Your task to perform on an android device: turn on showing notifications on the lock screen Image 0: 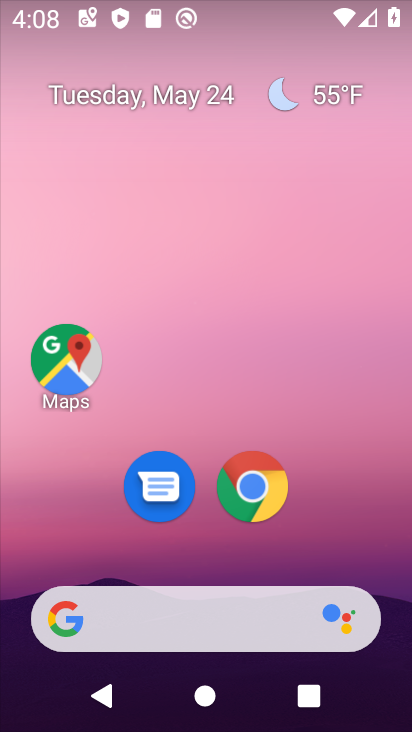
Step 0: drag from (346, 492) to (323, 319)
Your task to perform on an android device: turn on showing notifications on the lock screen Image 1: 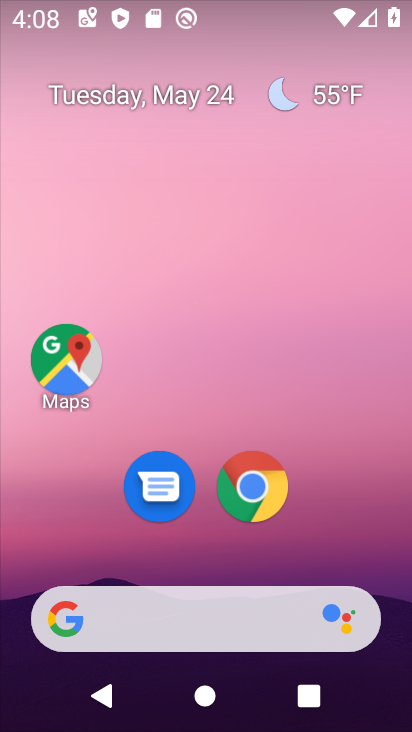
Step 1: drag from (351, 383) to (327, 98)
Your task to perform on an android device: turn on showing notifications on the lock screen Image 2: 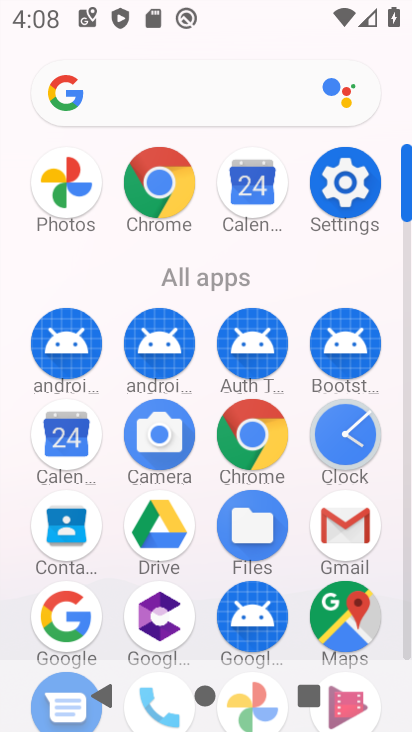
Step 2: click (325, 194)
Your task to perform on an android device: turn on showing notifications on the lock screen Image 3: 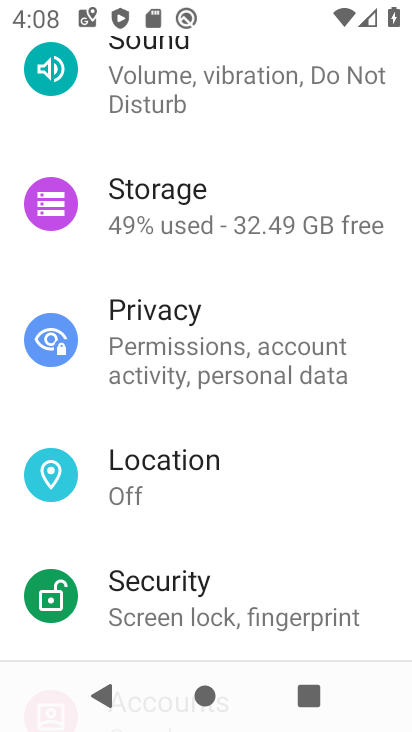
Step 3: drag from (299, 174) to (285, 537)
Your task to perform on an android device: turn on showing notifications on the lock screen Image 4: 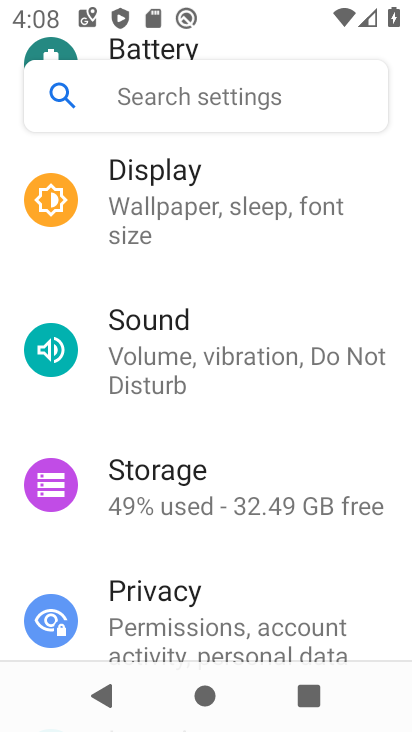
Step 4: drag from (310, 314) to (294, 601)
Your task to perform on an android device: turn on showing notifications on the lock screen Image 5: 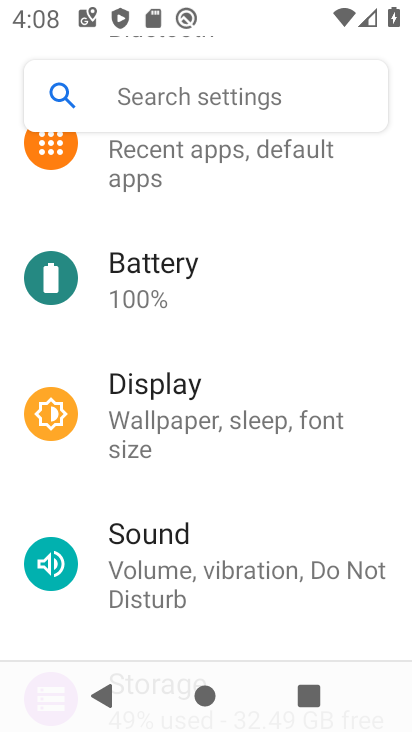
Step 5: drag from (264, 317) to (268, 597)
Your task to perform on an android device: turn on showing notifications on the lock screen Image 6: 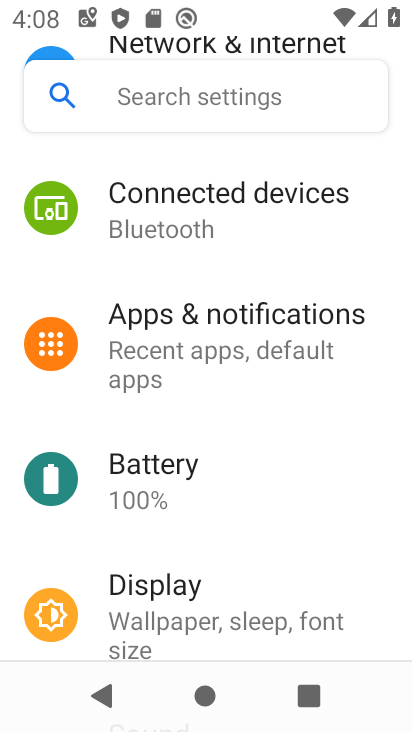
Step 6: drag from (256, 513) to (250, 176)
Your task to perform on an android device: turn on showing notifications on the lock screen Image 7: 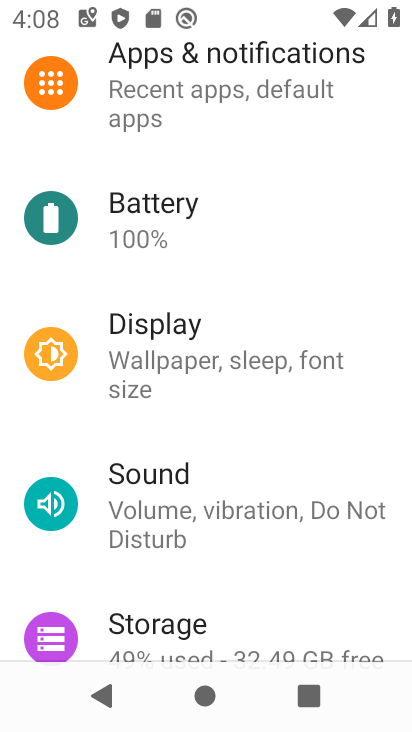
Step 7: drag from (261, 503) to (255, 160)
Your task to perform on an android device: turn on showing notifications on the lock screen Image 8: 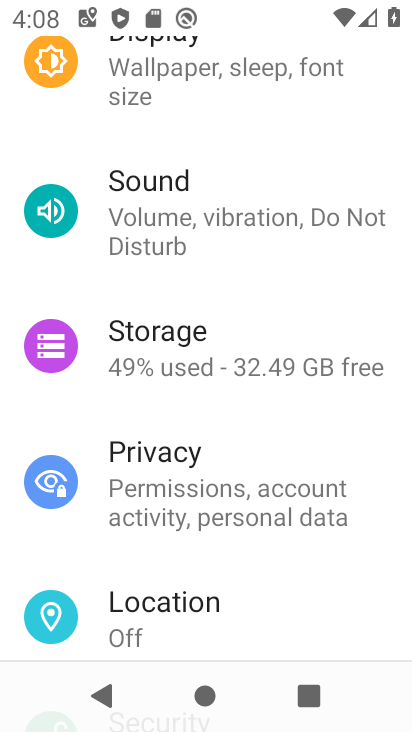
Step 8: drag from (221, 505) to (218, 248)
Your task to perform on an android device: turn on showing notifications on the lock screen Image 9: 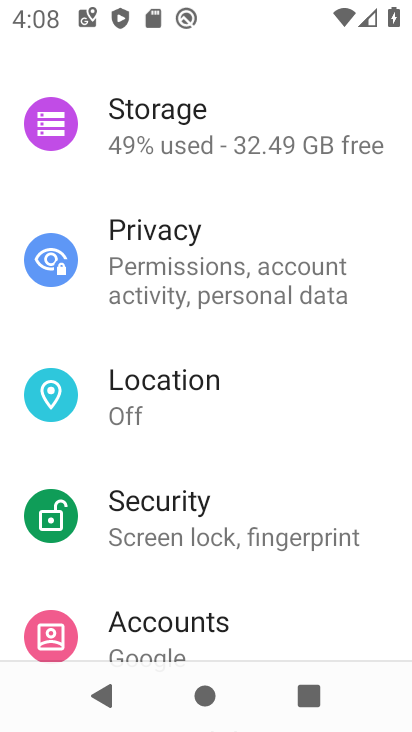
Step 9: drag from (203, 357) to (206, 265)
Your task to perform on an android device: turn on showing notifications on the lock screen Image 10: 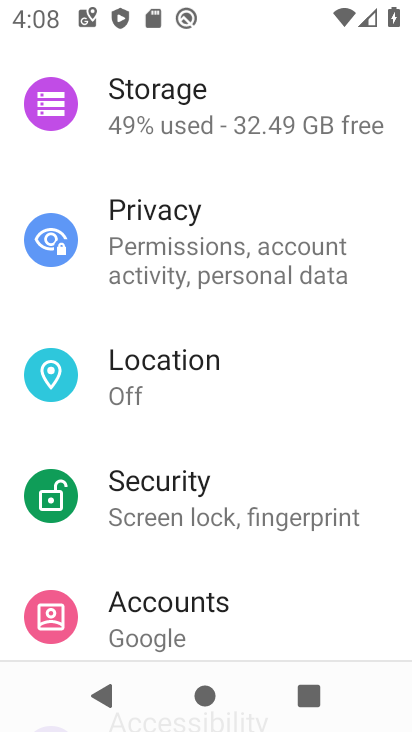
Step 10: drag from (237, 534) to (232, 405)
Your task to perform on an android device: turn on showing notifications on the lock screen Image 11: 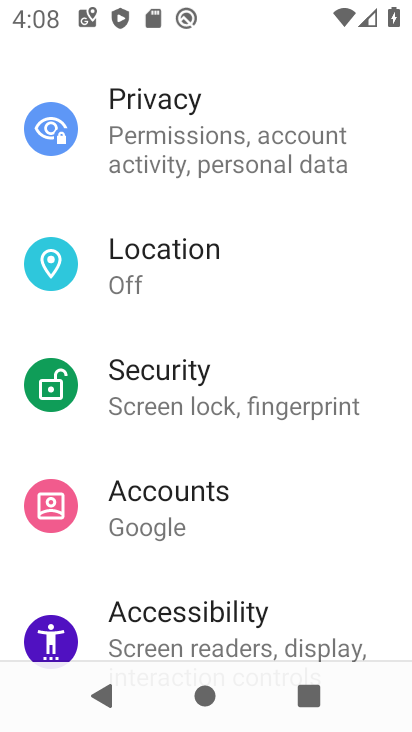
Step 11: drag from (253, 587) to (249, 438)
Your task to perform on an android device: turn on showing notifications on the lock screen Image 12: 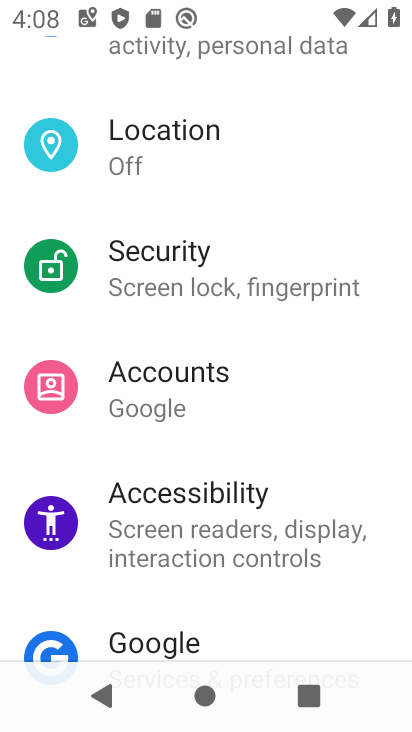
Step 12: drag from (253, 651) to (256, 464)
Your task to perform on an android device: turn on showing notifications on the lock screen Image 13: 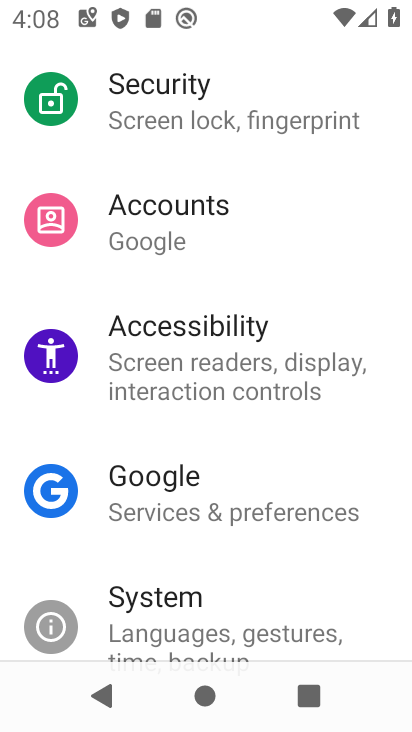
Step 13: drag from (383, 153) to (365, 562)
Your task to perform on an android device: turn on showing notifications on the lock screen Image 14: 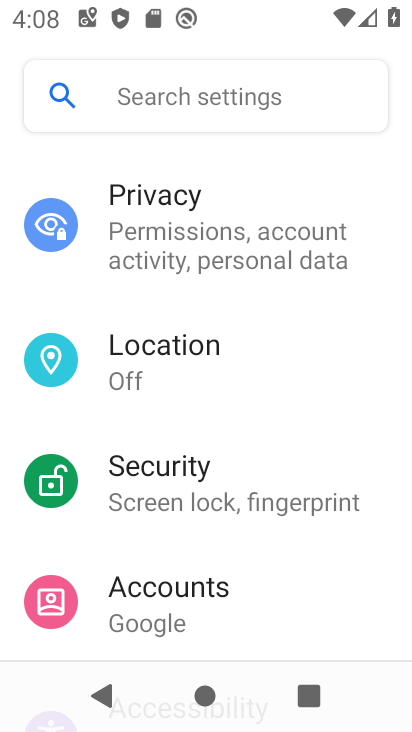
Step 14: drag from (234, 228) to (185, 603)
Your task to perform on an android device: turn on showing notifications on the lock screen Image 15: 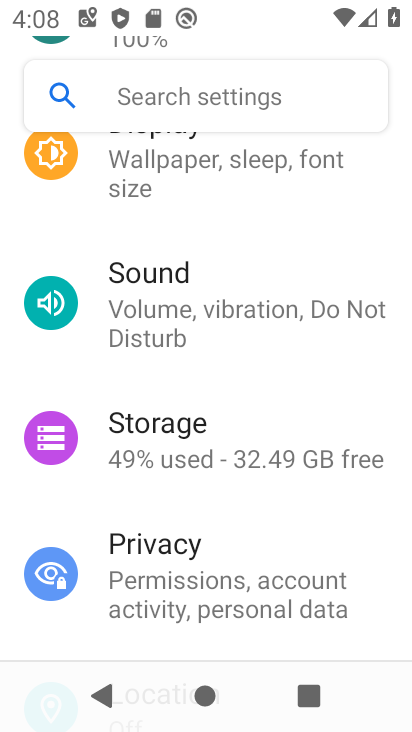
Step 15: drag from (218, 335) to (166, 541)
Your task to perform on an android device: turn on showing notifications on the lock screen Image 16: 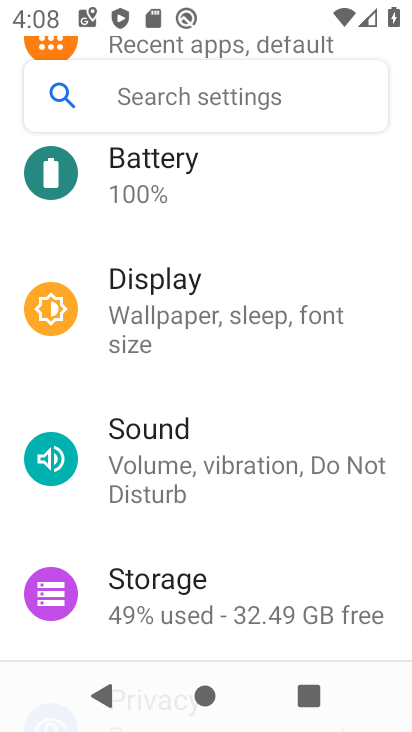
Step 16: click (190, 283)
Your task to perform on an android device: turn on showing notifications on the lock screen Image 17: 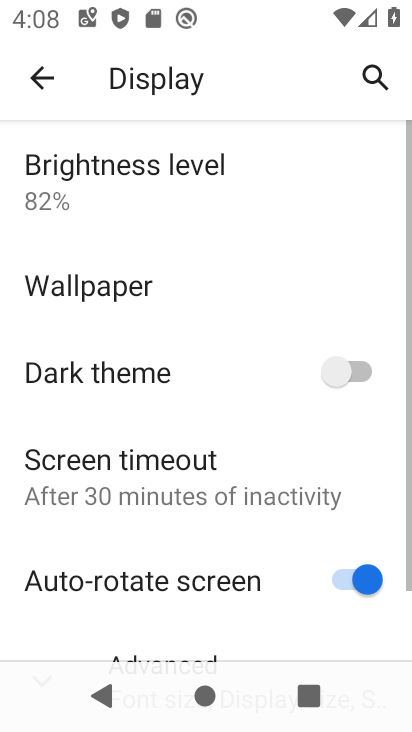
Step 17: drag from (180, 532) to (199, 82)
Your task to perform on an android device: turn on showing notifications on the lock screen Image 18: 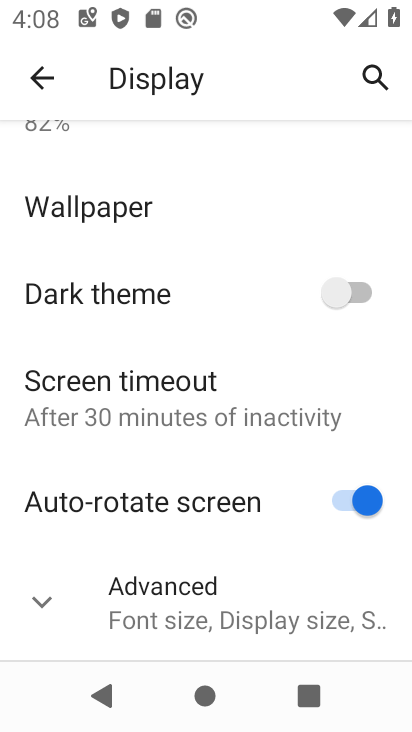
Step 18: click (209, 606)
Your task to perform on an android device: turn on showing notifications on the lock screen Image 19: 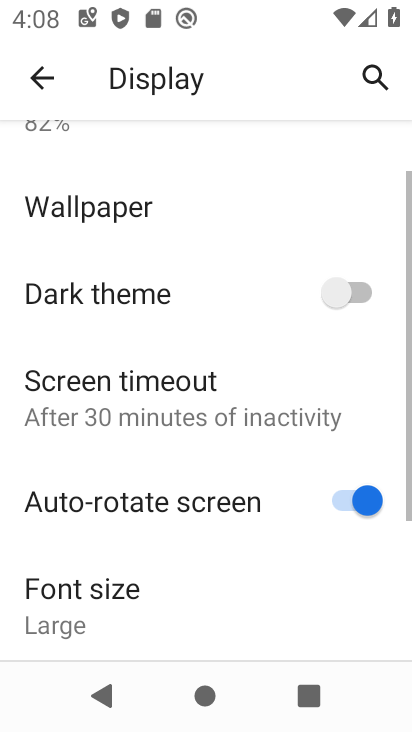
Step 19: drag from (215, 596) to (215, 174)
Your task to perform on an android device: turn on showing notifications on the lock screen Image 20: 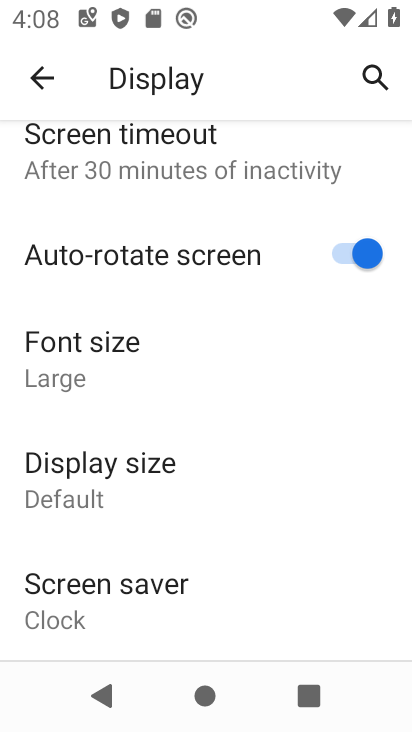
Step 20: drag from (196, 542) to (188, 183)
Your task to perform on an android device: turn on showing notifications on the lock screen Image 21: 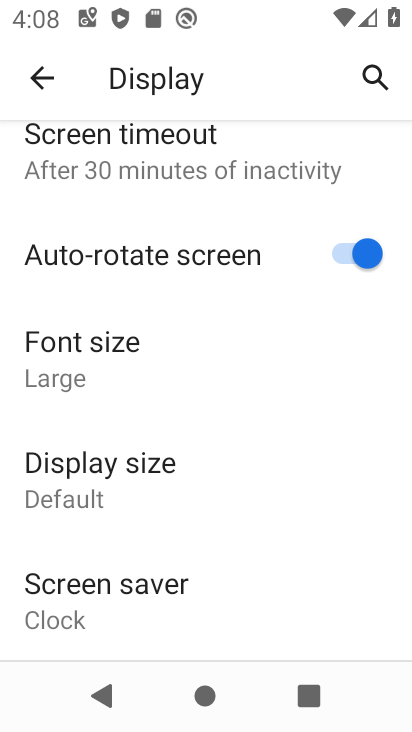
Step 21: press back button
Your task to perform on an android device: turn on showing notifications on the lock screen Image 22: 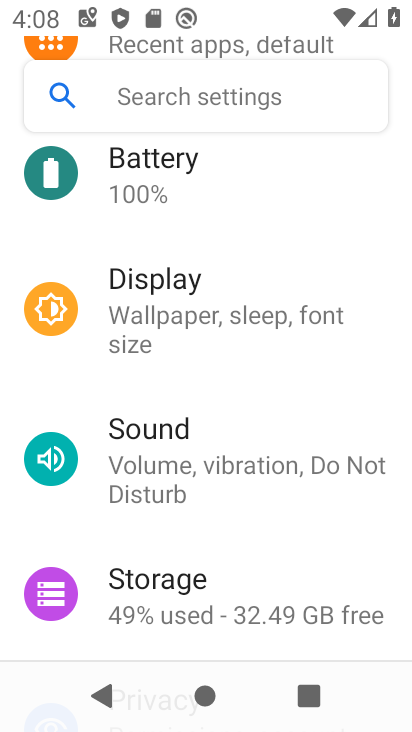
Step 22: drag from (215, 226) to (204, 631)
Your task to perform on an android device: turn on showing notifications on the lock screen Image 23: 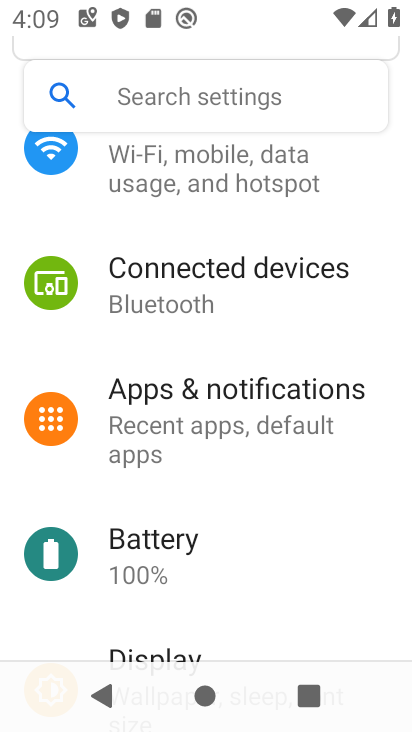
Step 23: click (170, 396)
Your task to perform on an android device: turn on showing notifications on the lock screen Image 24: 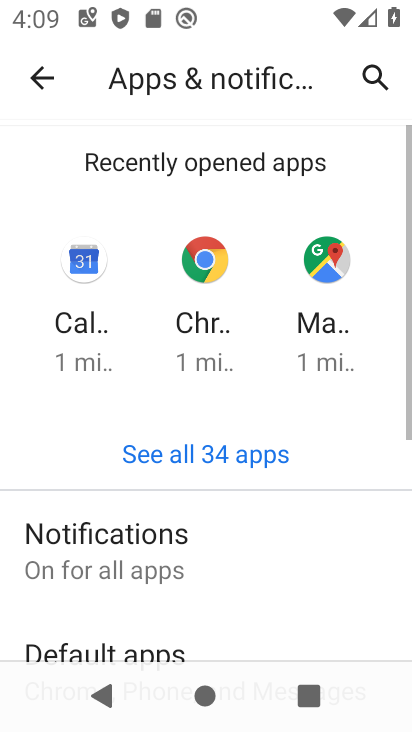
Step 24: drag from (160, 544) to (155, 124)
Your task to perform on an android device: turn on showing notifications on the lock screen Image 25: 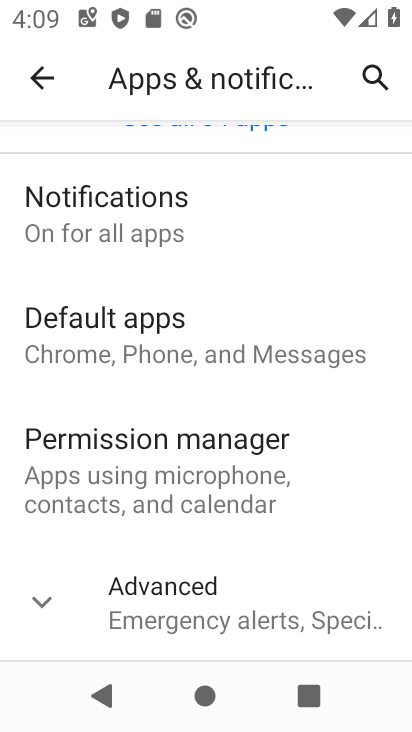
Step 25: click (209, 228)
Your task to perform on an android device: turn on showing notifications on the lock screen Image 26: 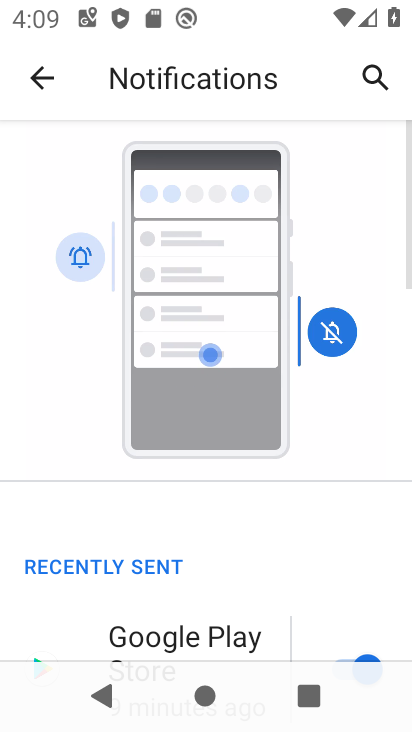
Step 26: drag from (194, 563) to (188, 139)
Your task to perform on an android device: turn on showing notifications on the lock screen Image 27: 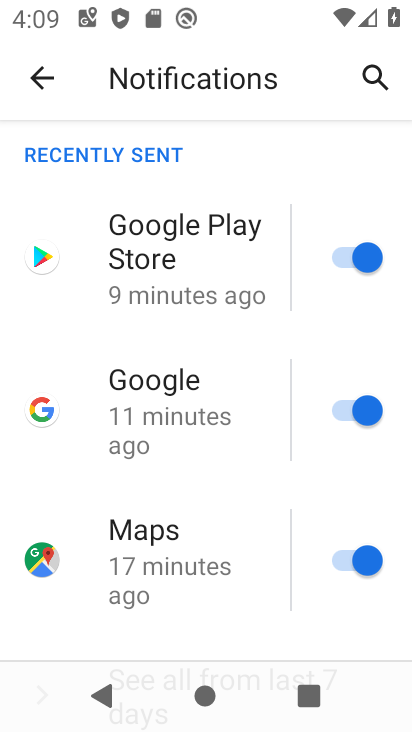
Step 27: drag from (221, 527) to (215, 153)
Your task to perform on an android device: turn on showing notifications on the lock screen Image 28: 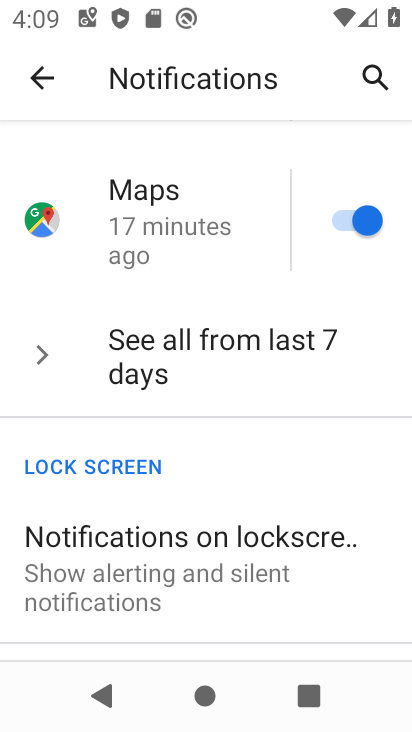
Step 28: click (216, 560)
Your task to perform on an android device: turn on showing notifications on the lock screen Image 29: 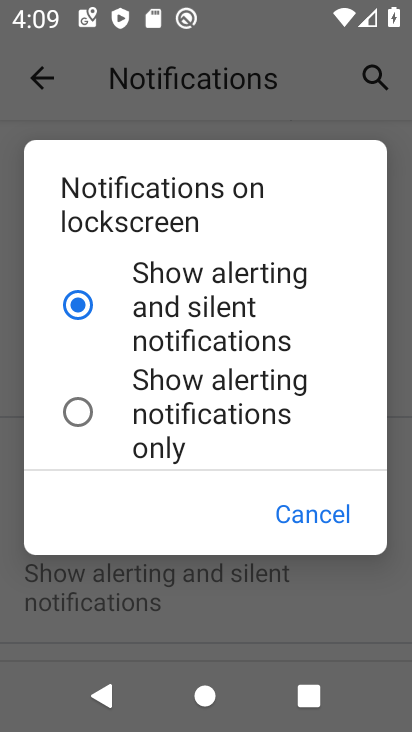
Step 29: click (81, 418)
Your task to perform on an android device: turn on showing notifications on the lock screen Image 30: 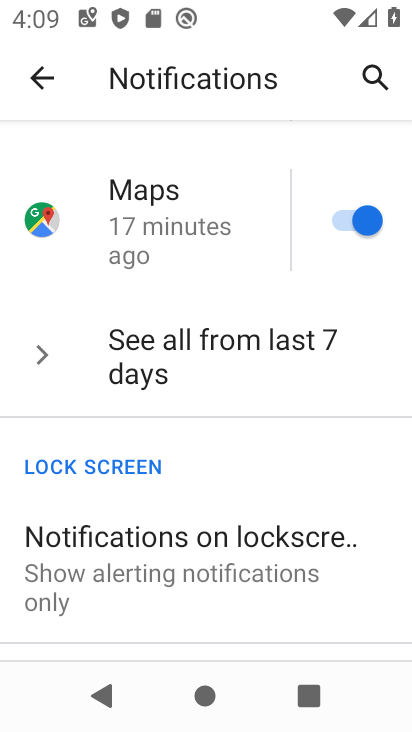
Step 30: click (237, 564)
Your task to perform on an android device: turn on showing notifications on the lock screen Image 31: 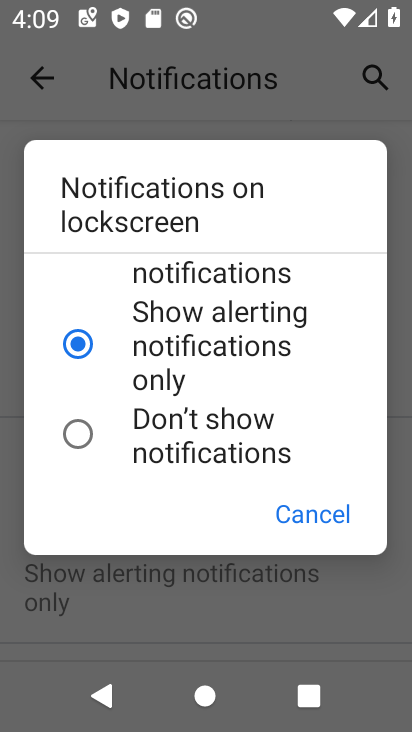
Step 31: drag from (174, 296) to (119, 535)
Your task to perform on an android device: turn on showing notifications on the lock screen Image 32: 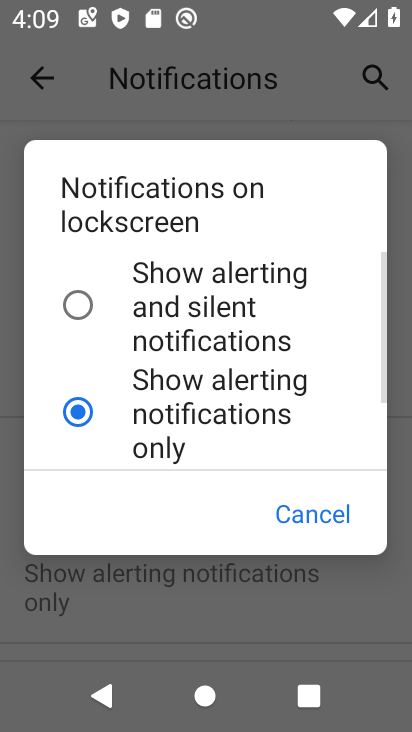
Step 32: click (85, 300)
Your task to perform on an android device: turn on showing notifications on the lock screen Image 33: 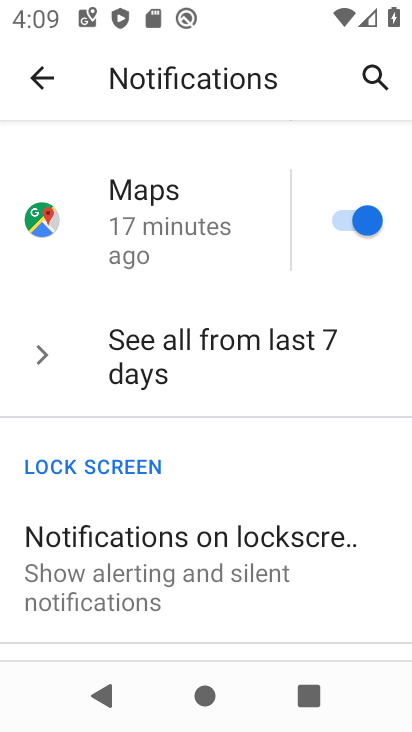
Step 33: task complete